Your task to perform on an android device: Open the phone app and click the voicemail tab. Image 0: 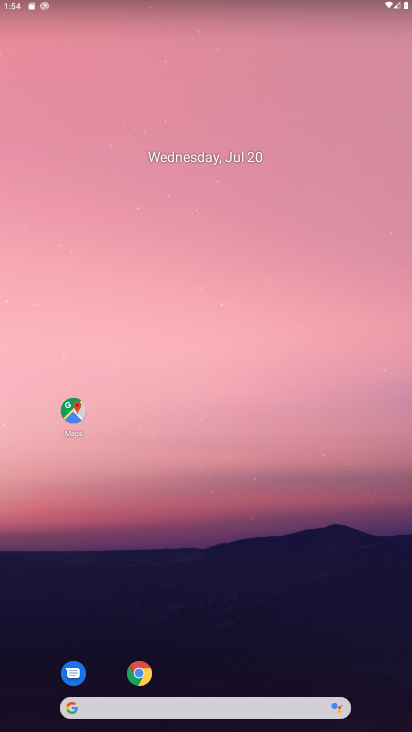
Step 0: drag from (190, 702) to (143, 0)
Your task to perform on an android device: Open the phone app and click the voicemail tab. Image 1: 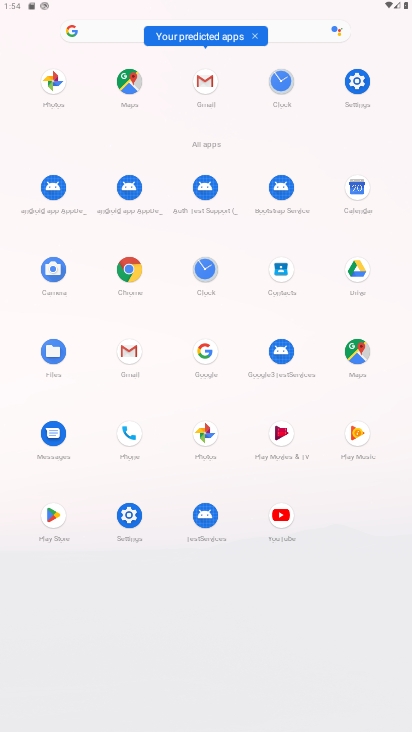
Step 1: click (129, 440)
Your task to perform on an android device: Open the phone app and click the voicemail tab. Image 2: 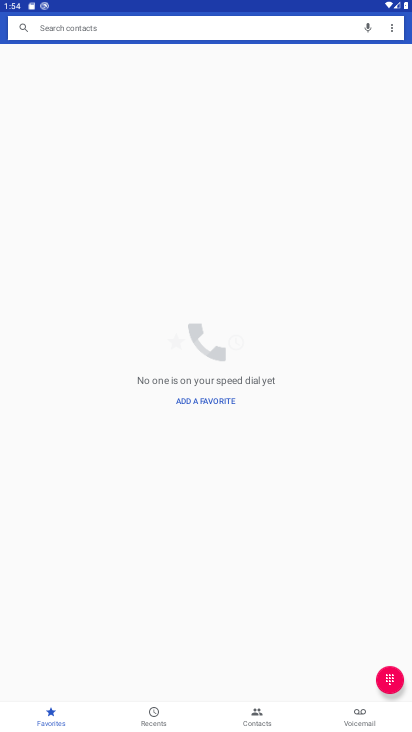
Step 2: click (356, 715)
Your task to perform on an android device: Open the phone app and click the voicemail tab. Image 3: 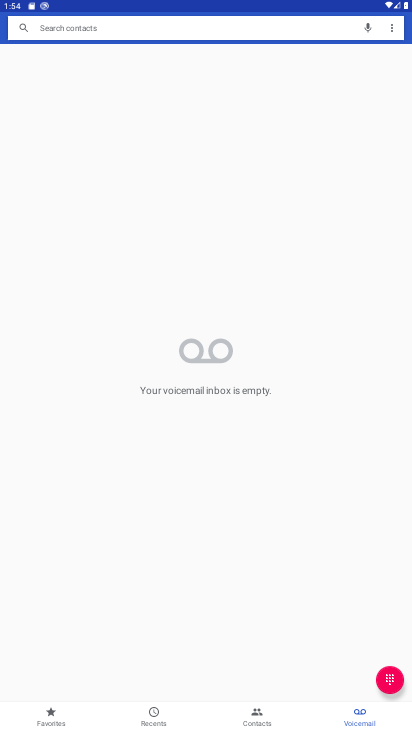
Step 3: task complete